Your task to perform on an android device: Go to Yahoo.com Image 0: 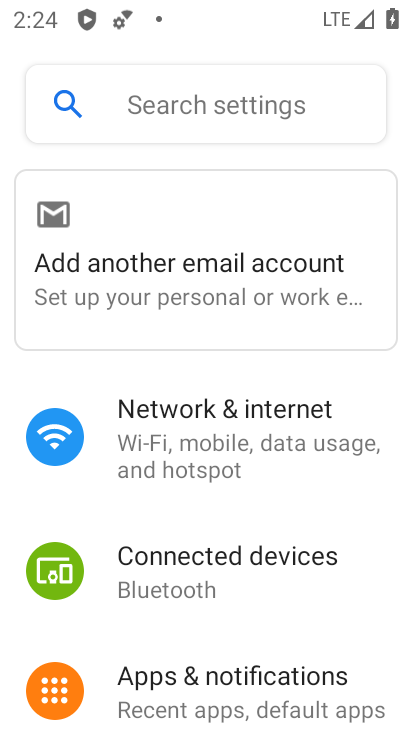
Step 0: press home button
Your task to perform on an android device: Go to Yahoo.com Image 1: 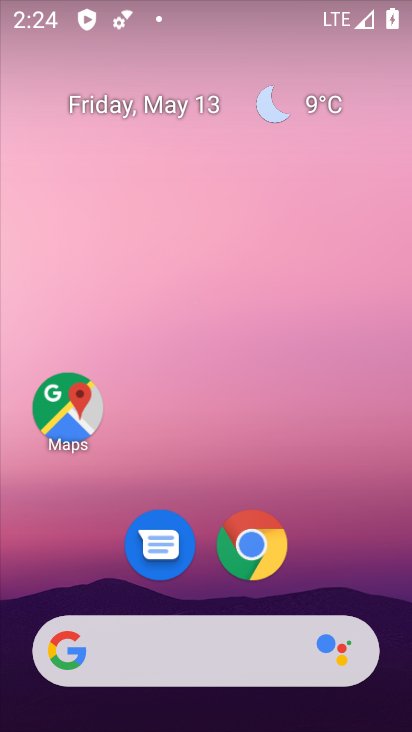
Step 1: drag from (325, 559) to (342, 116)
Your task to perform on an android device: Go to Yahoo.com Image 2: 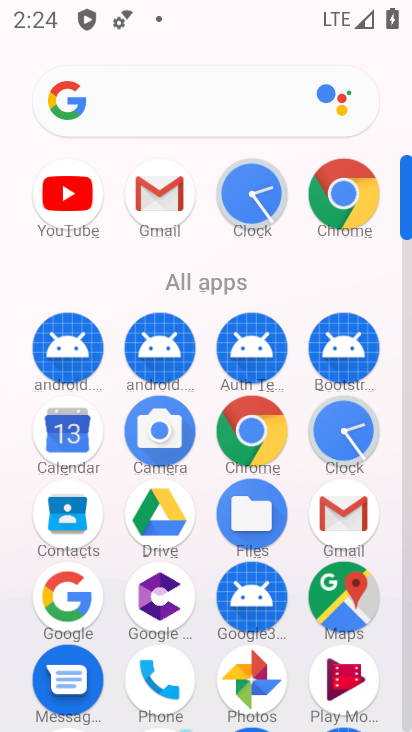
Step 2: click (333, 199)
Your task to perform on an android device: Go to Yahoo.com Image 3: 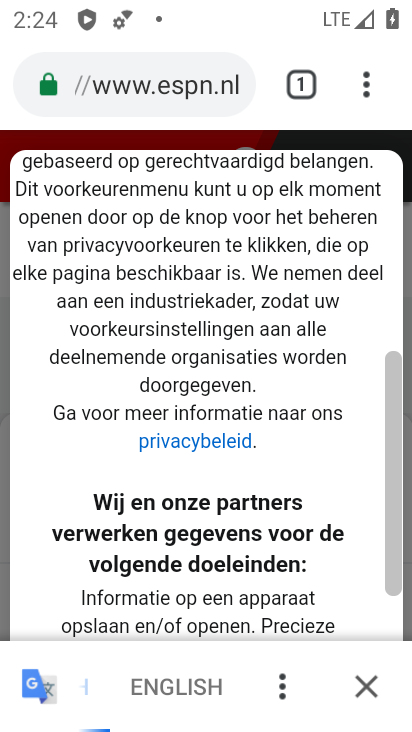
Step 3: click (210, 85)
Your task to perform on an android device: Go to Yahoo.com Image 4: 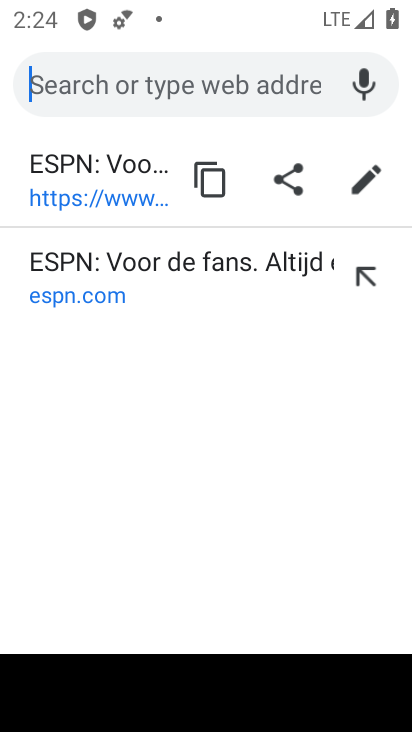
Step 4: type " Yahoo.com"
Your task to perform on an android device: Go to Yahoo.com Image 5: 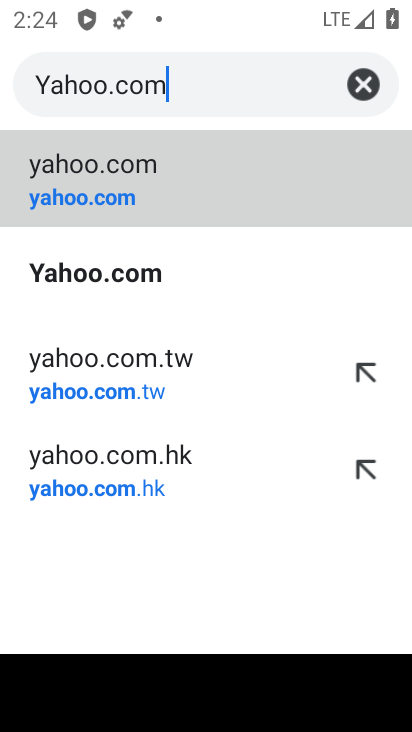
Step 5: click (115, 194)
Your task to perform on an android device: Go to Yahoo.com Image 6: 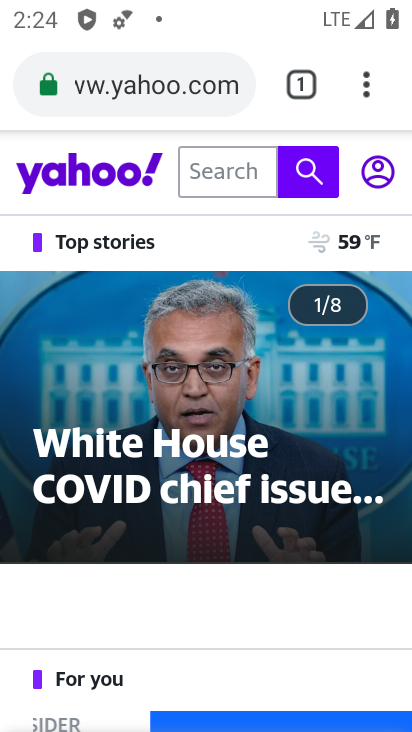
Step 6: task complete